Your task to perform on an android device: Go to location settings Image 0: 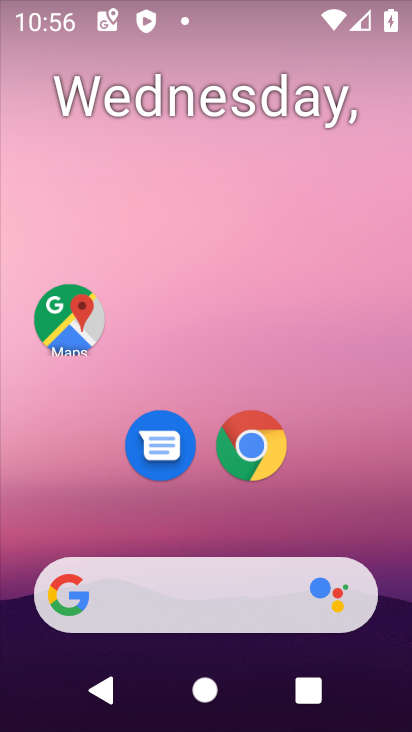
Step 0: drag from (213, 551) to (226, 30)
Your task to perform on an android device: Go to location settings Image 1: 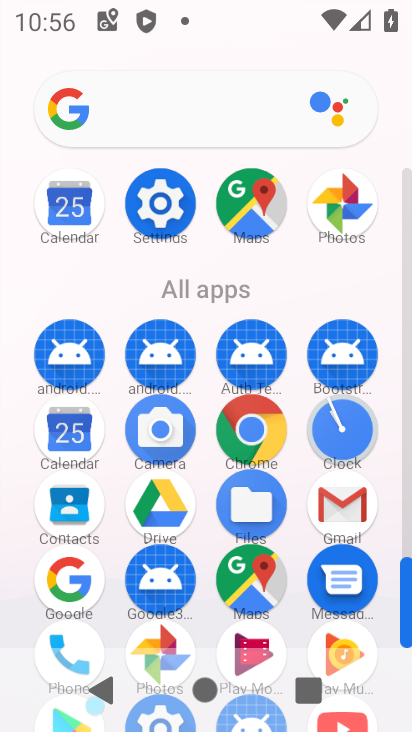
Step 1: click (171, 200)
Your task to perform on an android device: Go to location settings Image 2: 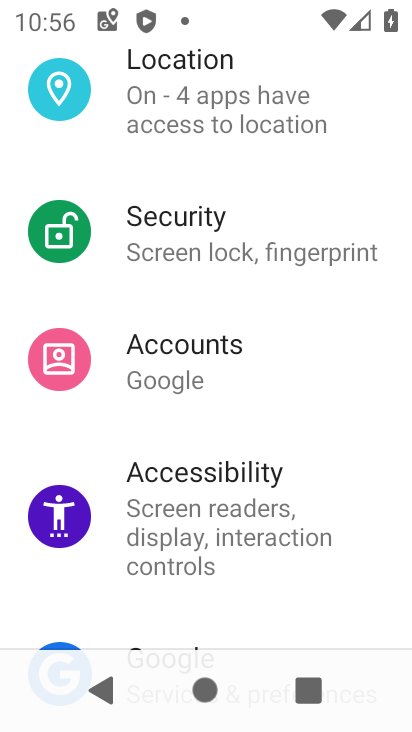
Step 2: click (194, 100)
Your task to perform on an android device: Go to location settings Image 3: 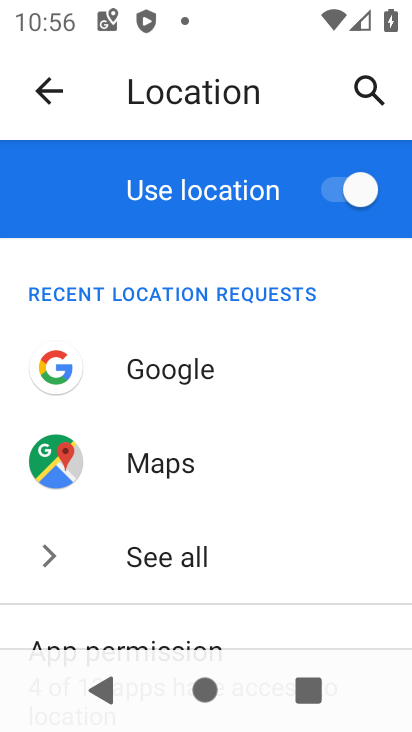
Step 3: task complete